Your task to perform on an android device: clear all cookies in the chrome app Image 0: 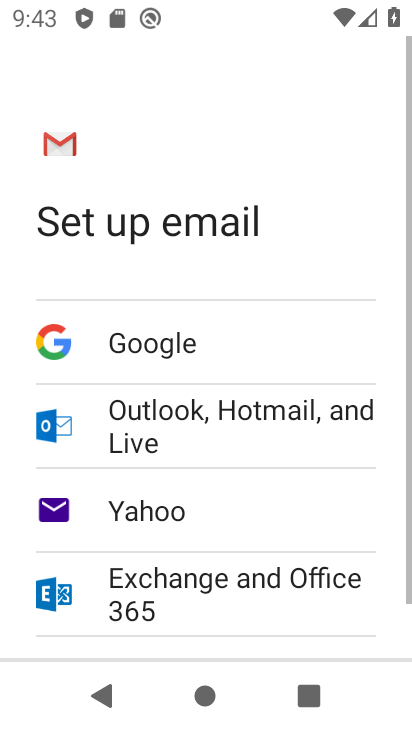
Step 0: press home button
Your task to perform on an android device: clear all cookies in the chrome app Image 1: 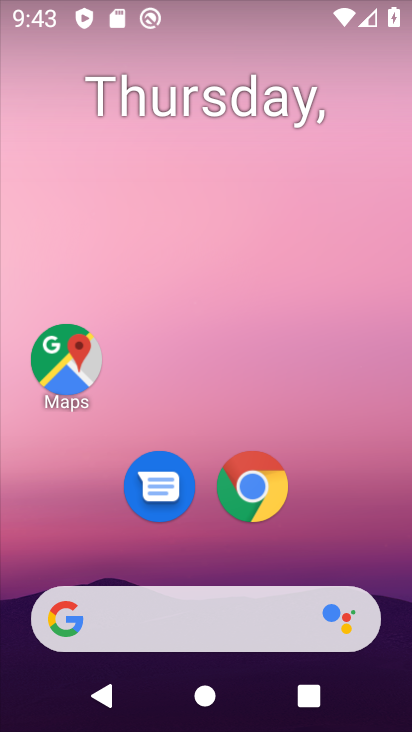
Step 1: click (279, 498)
Your task to perform on an android device: clear all cookies in the chrome app Image 2: 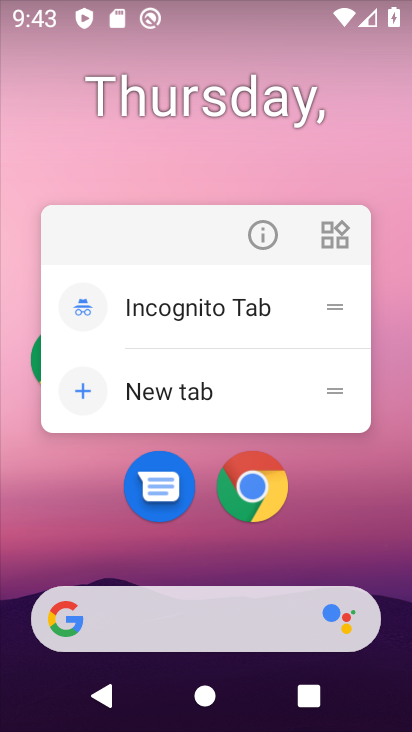
Step 2: click (269, 482)
Your task to perform on an android device: clear all cookies in the chrome app Image 3: 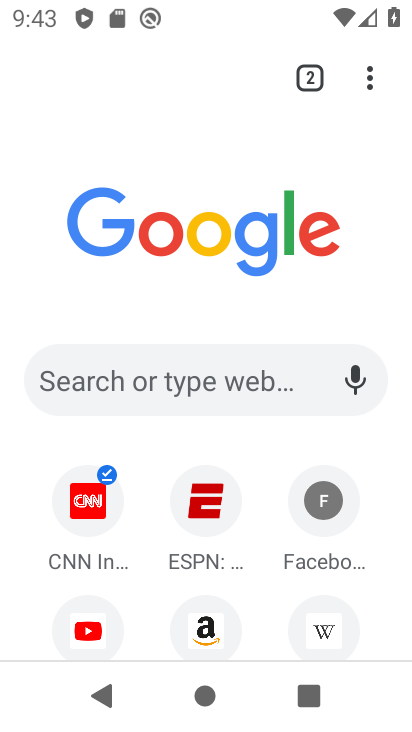
Step 3: drag from (366, 83) to (151, 412)
Your task to perform on an android device: clear all cookies in the chrome app Image 4: 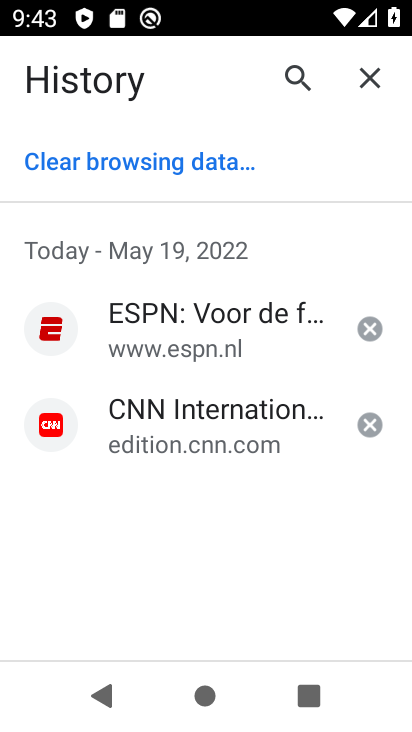
Step 4: click (132, 138)
Your task to perform on an android device: clear all cookies in the chrome app Image 5: 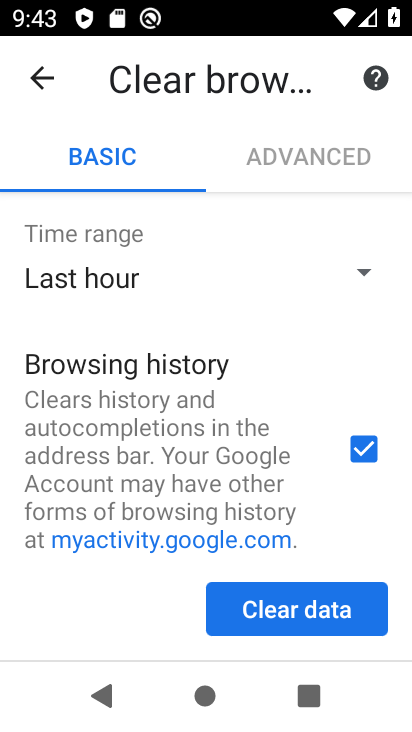
Step 5: drag from (181, 454) to (243, 147)
Your task to perform on an android device: clear all cookies in the chrome app Image 6: 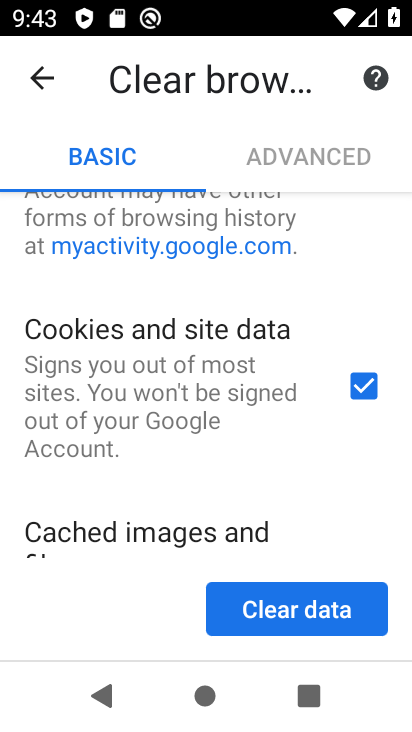
Step 6: click (259, 619)
Your task to perform on an android device: clear all cookies in the chrome app Image 7: 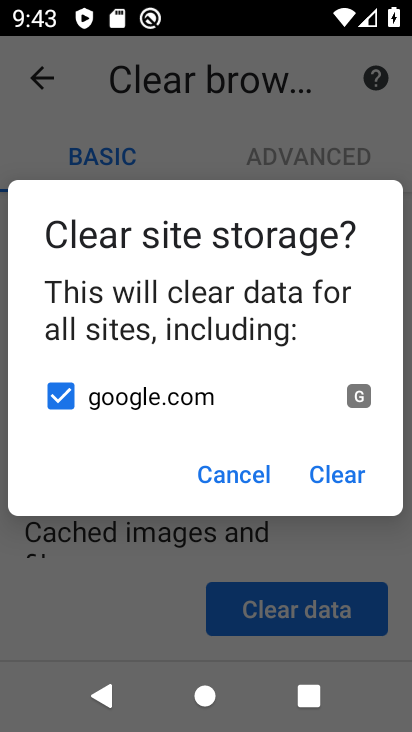
Step 7: click (339, 466)
Your task to perform on an android device: clear all cookies in the chrome app Image 8: 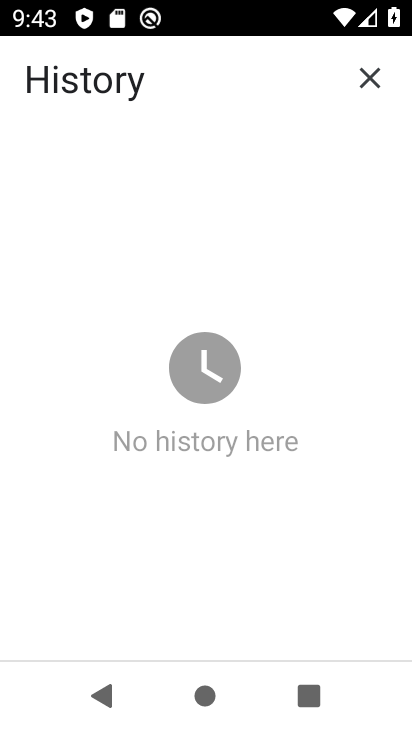
Step 8: task complete